Your task to perform on an android device: Open the web browser Image 0: 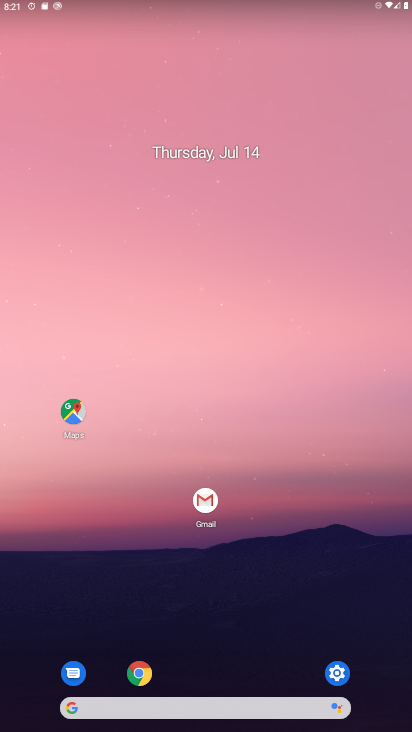
Step 0: press home button
Your task to perform on an android device: Open the web browser Image 1: 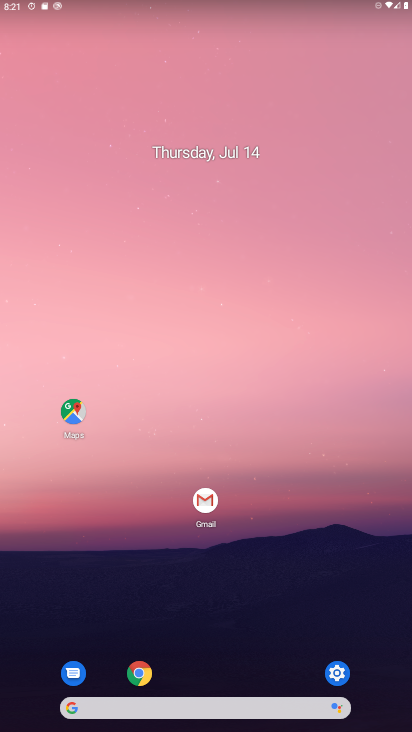
Step 1: click (147, 668)
Your task to perform on an android device: Open the web browser Image 2: 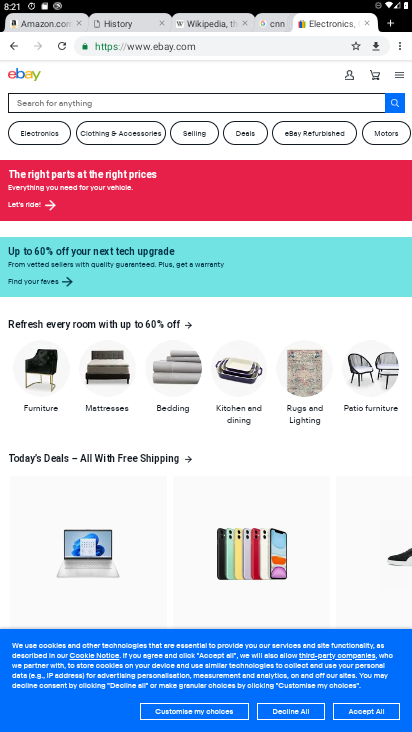
Step 2: click (161, 52)
Your task to perform on an android device: Open the web browser Image 3: 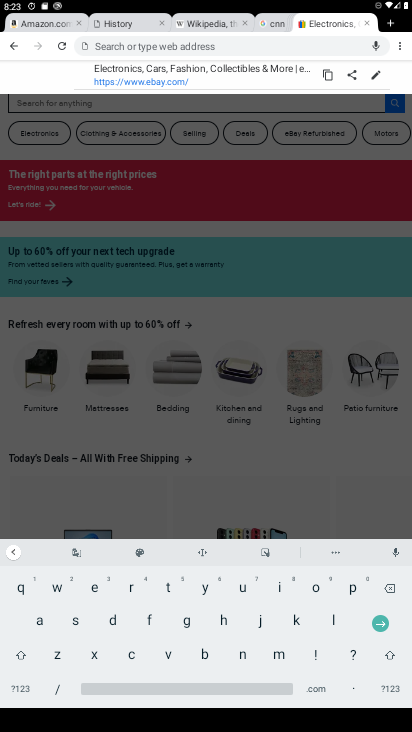
Step 3: task complete